Your task to perform on an android device: Open network settings Image 0: 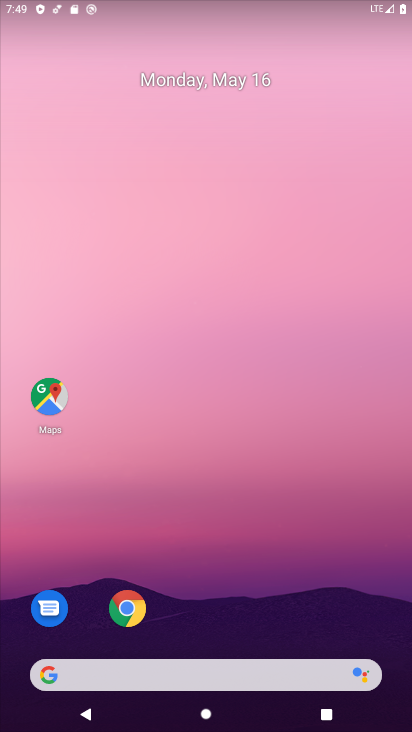
Step 0: drag from (250, 607) to (208, 138)
Your task to perform on an android device: Open network settings Image 1: 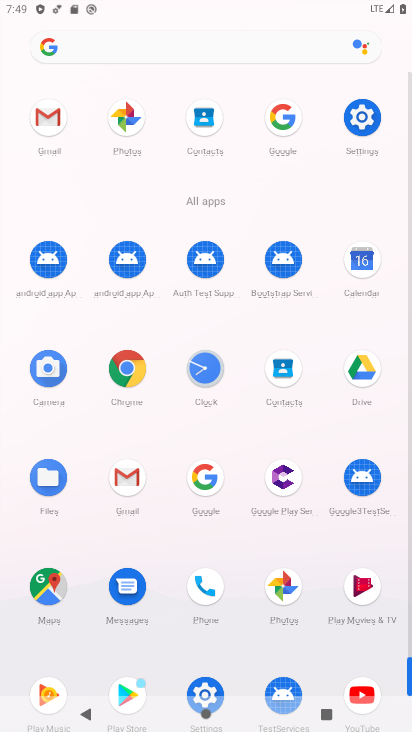
Step 1: click (363, 118)
Your task to perform on an android device: Open network settings Image 2: 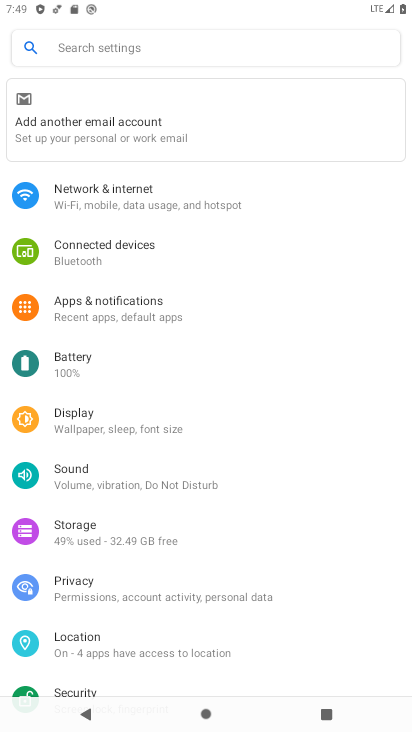
Step 2: click (107, 193)
Your task to perform on an android device: Open network settings Image 3: 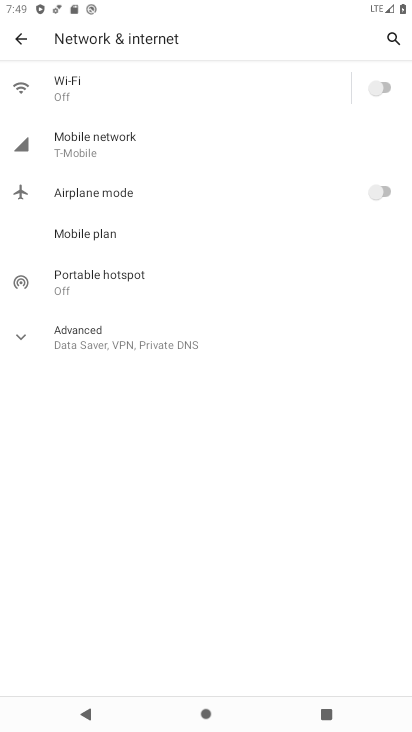
Step 3: click (106, 143)
Your task to perform on an android device: Open network settings Image 4: 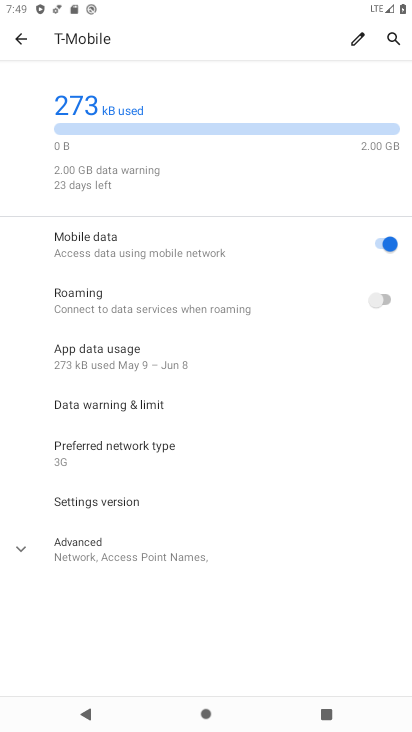
Step 4: task complete